Your task to perform on an android device: open a bookmark in the chrome app Image 0: 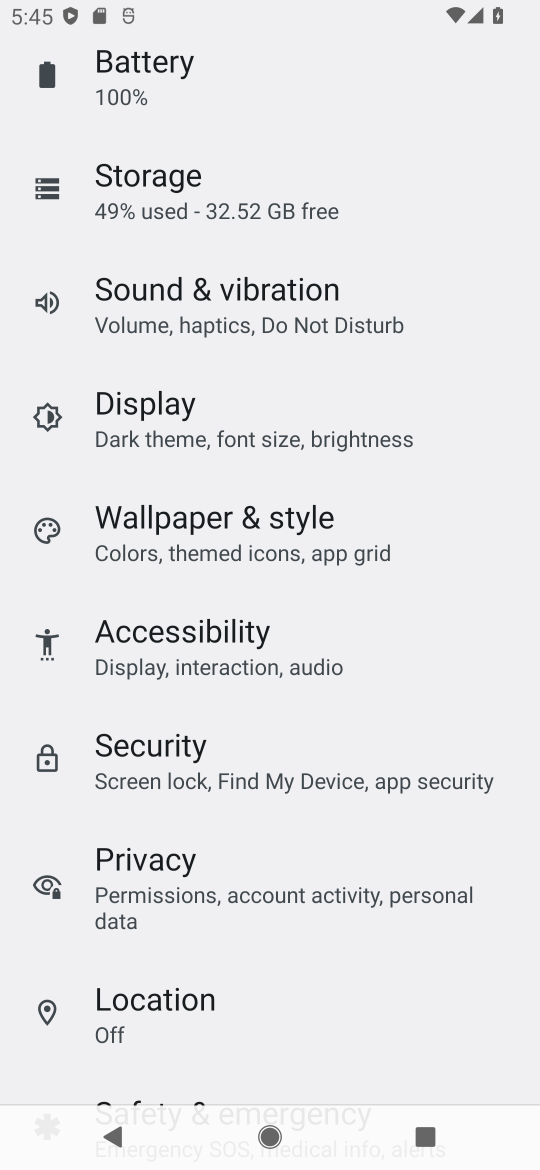
Step 0: press home button
Your task to perform on an android device: open a bookmark in the chrome app Image 1: 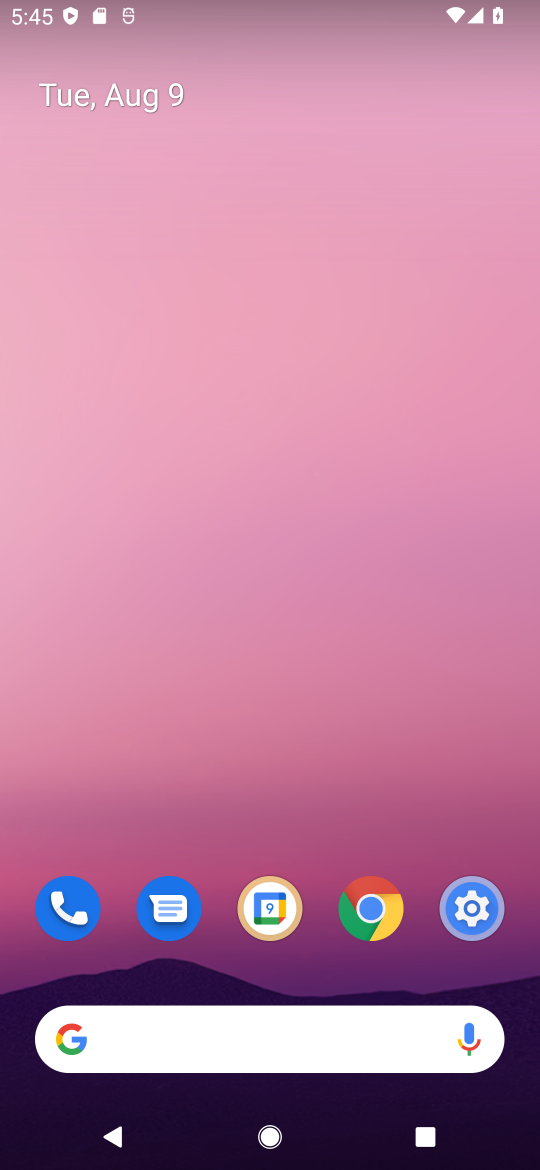
Step 1: click (371, 901)
Your task to perform on an android device: open a bookmark in the chrome app Image 2: 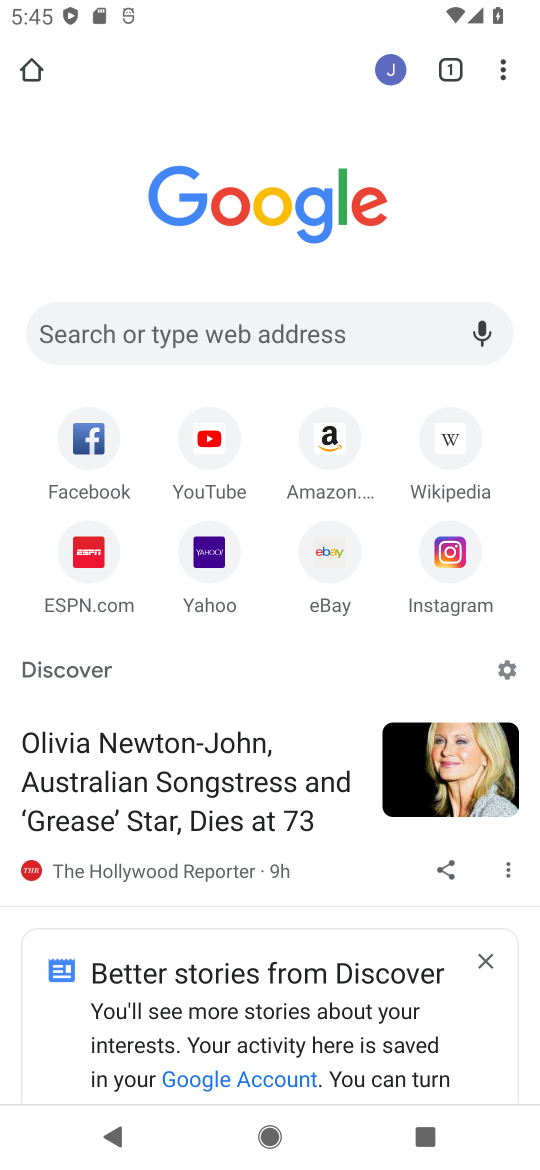
Step 2: click (497, 81)
Your task to perform on an android device: open a bookmark in the chrome app Image 3: 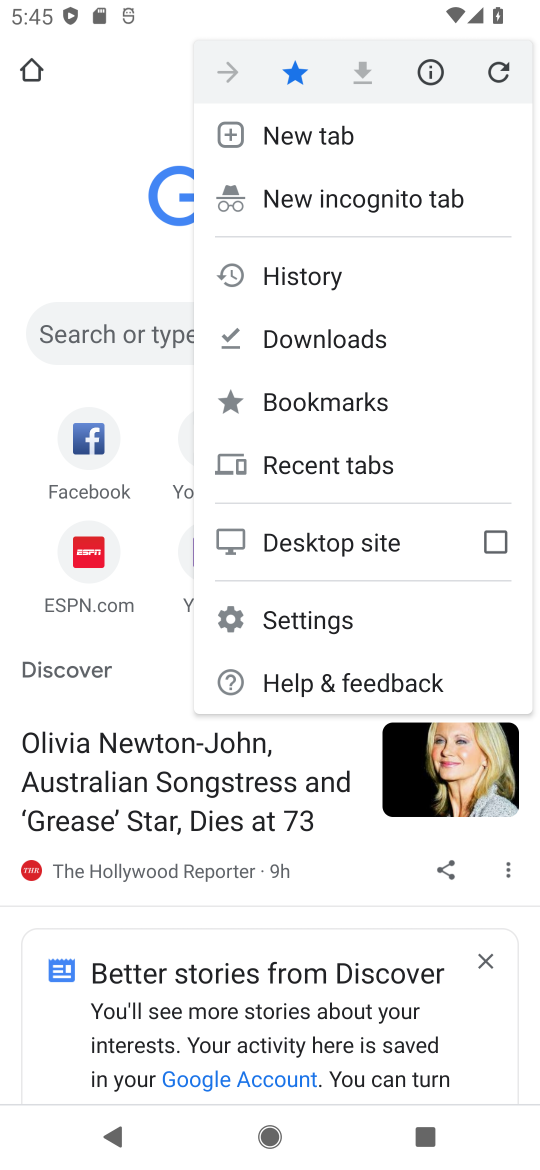
Step 3: click (362, 388)
Your task to perform on an android device: open a bookmark in the chrome app Image 4: 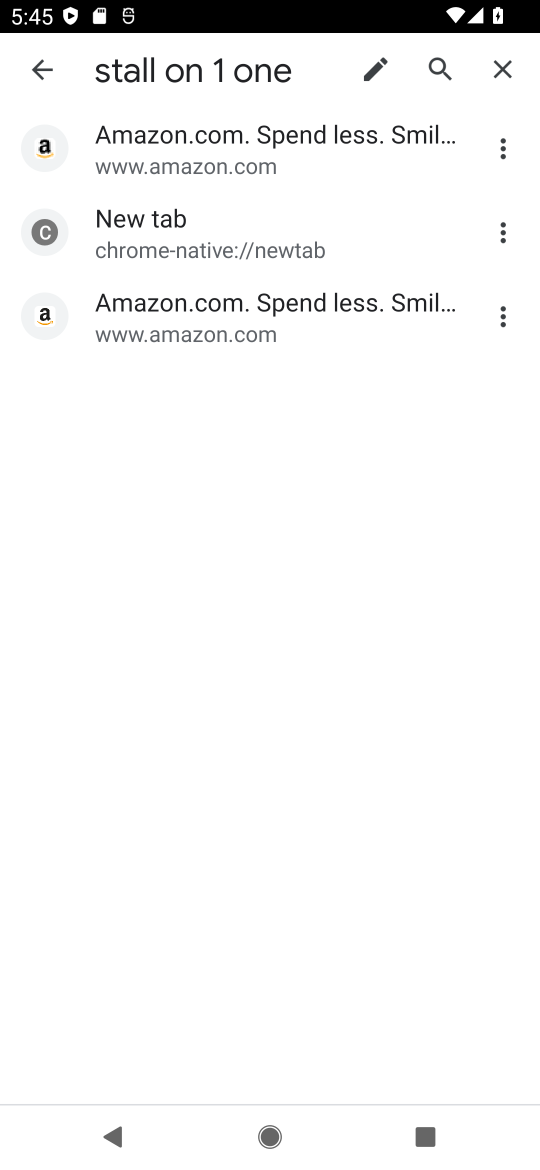
Step 4: click (307, 308)
Your task to perform on an android device: open a bookmark in the chrome app Image 5: 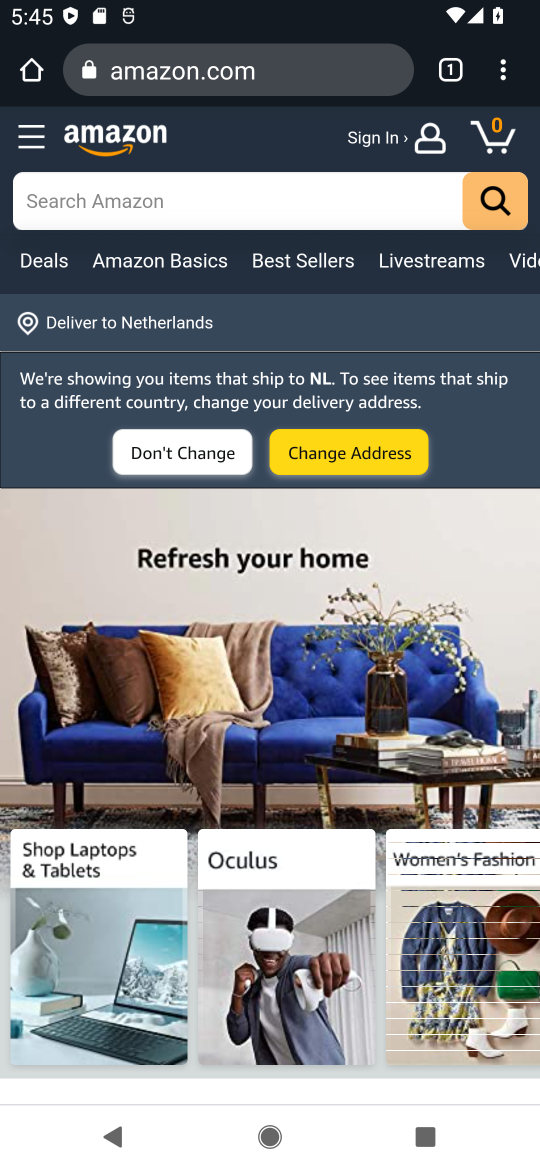
Step 5: task complete